Your task to perform on an android device: open app "PUBG MOBILE" Image 0: 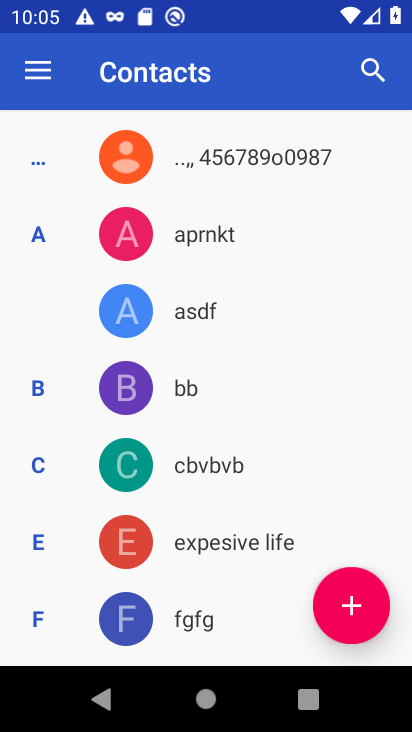
Step 0: press home button
Your task to perform on an android device: open app "PUBG MOBILE" Image 1: 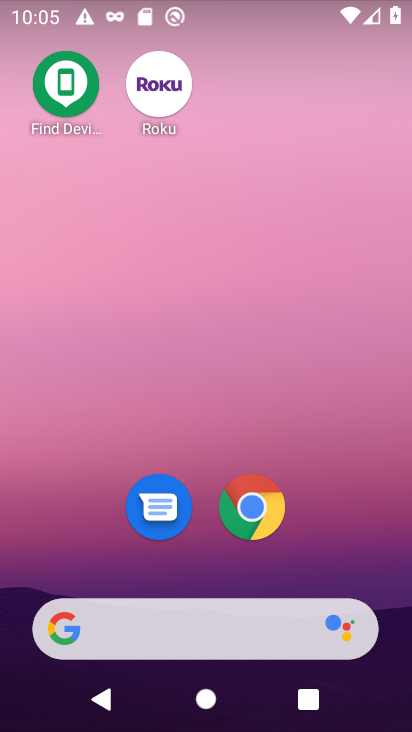
Step 1: drag from (179, 626) to (239, 128)
Your task to perform on an android device: open app "PUBG MOBILE" Image 2: 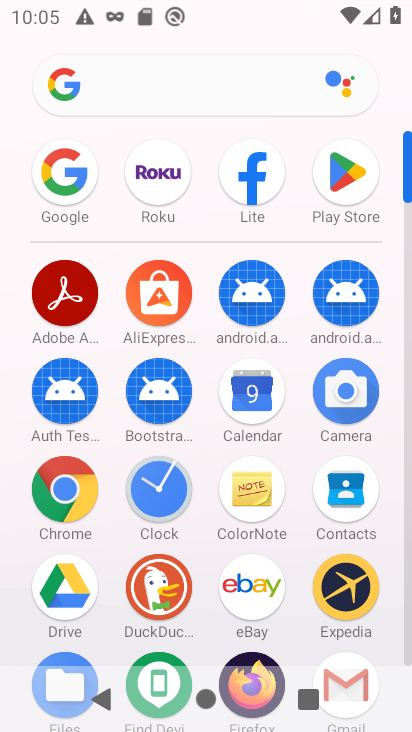
Step 2: click (353, 174)
Your task to perform on an android device: open app "PUBG MOBILE" Image 3: 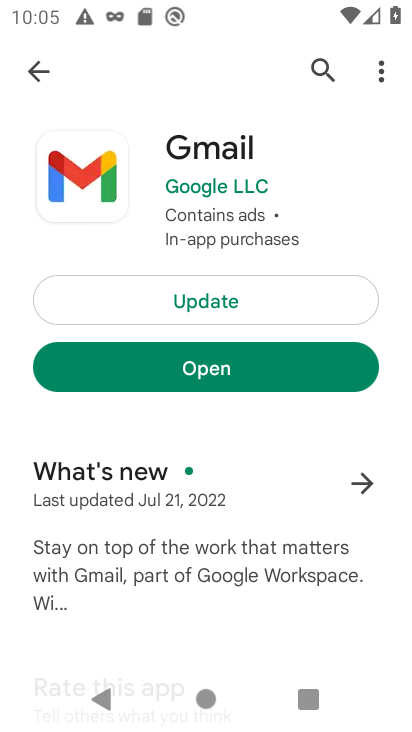
Step 3: click (320, 66)
Your task to perform on an android device: open app "PUBG MOBILE" Image 4: 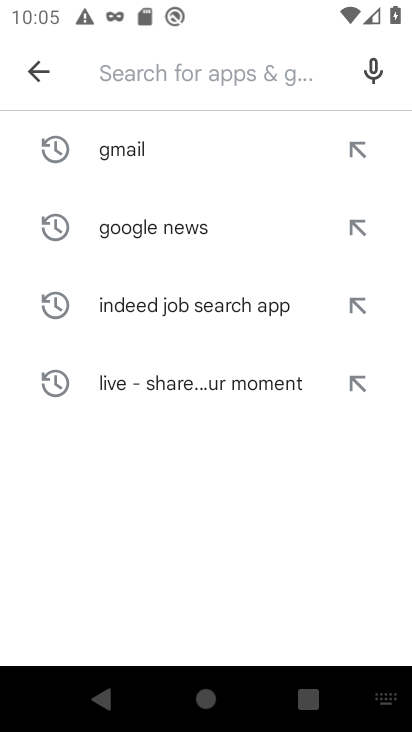
Step 4: type "PUBG MOBILE"
Your task to perform on an android device: open app "PUBG MOBILE" Image 5: 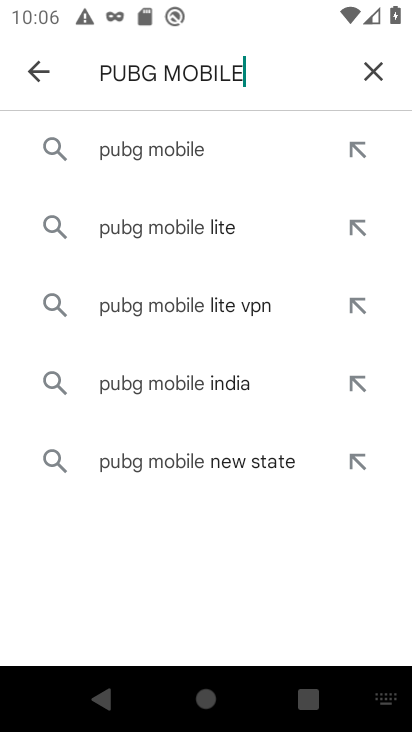
Step 5: click (137, 155)
Your task to perform on an android device: open app "PUBG MOBILE" Image 6: 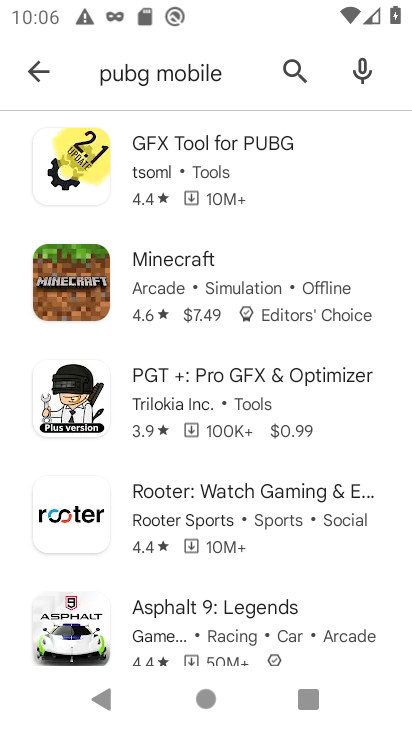
Step 6: task complete